Your task to perform on an android device: see creations saved in the google photos Image 0: 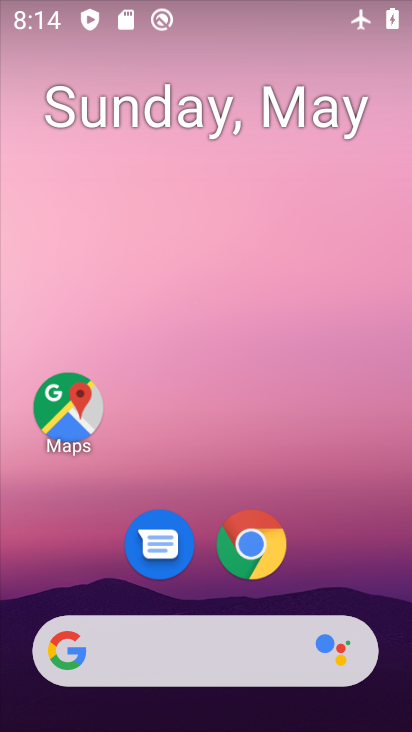
Step 0: drag from (314, 583) to (237, 4)
Your task to perform on an android device: see creations saved in the google photos Image 1: 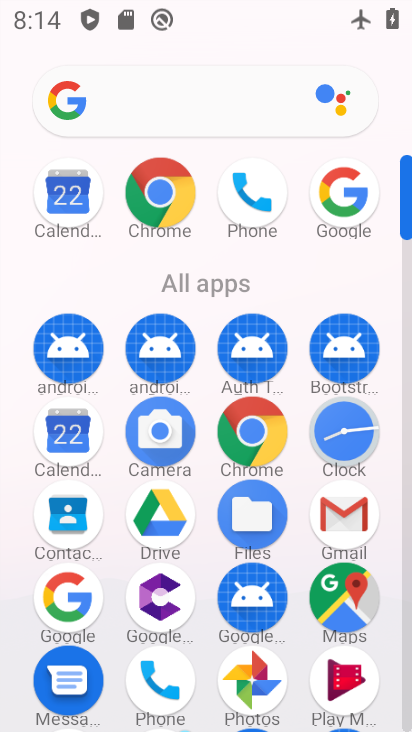
Step 1: drag from (15, 617) to (14, 207)
Your task to perform on an android device: see creations saved in the google photos Image 2: 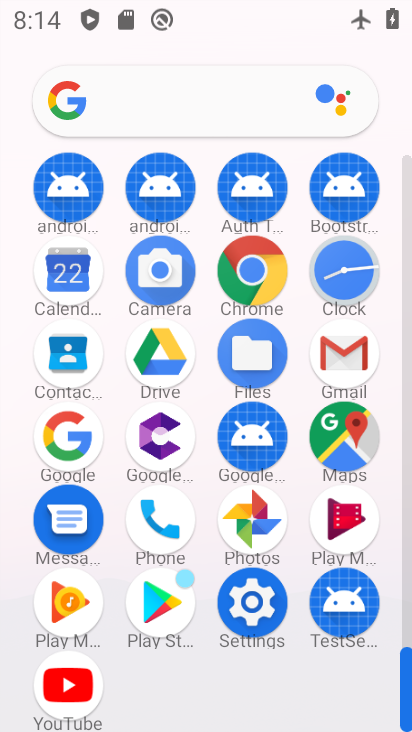
Step 2: click (253, 509)
Your task to perform on an android device: see creations saved in the google photos Image 3: 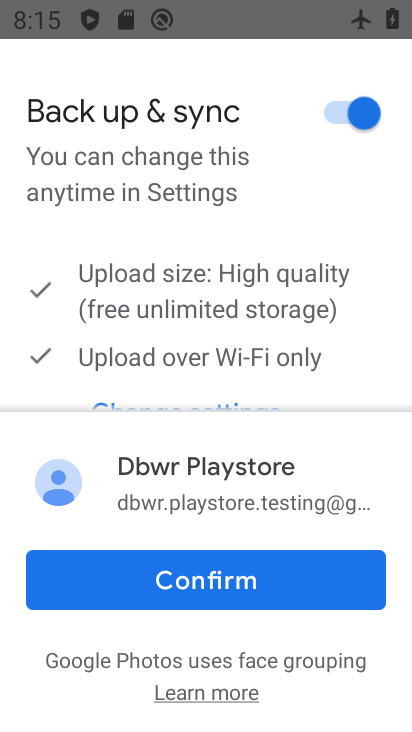
Step 3: click (252, 584)
Your task to perform on an android device: see creations saved in the google photos Image 4: 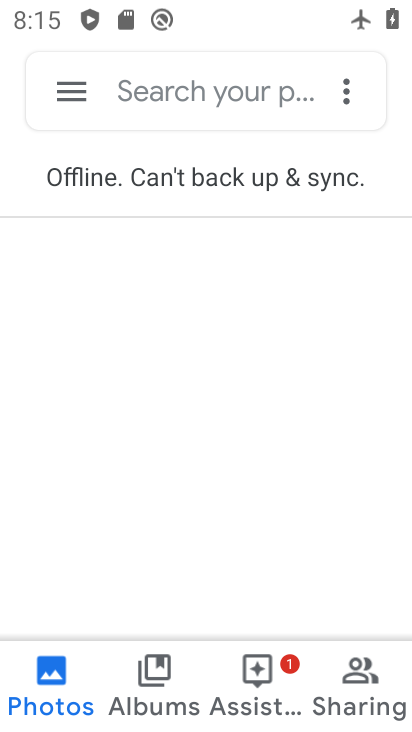
Step 4: click (65, 86)
Your task to perform on an android device: see creations saved in the google photos Image 5: 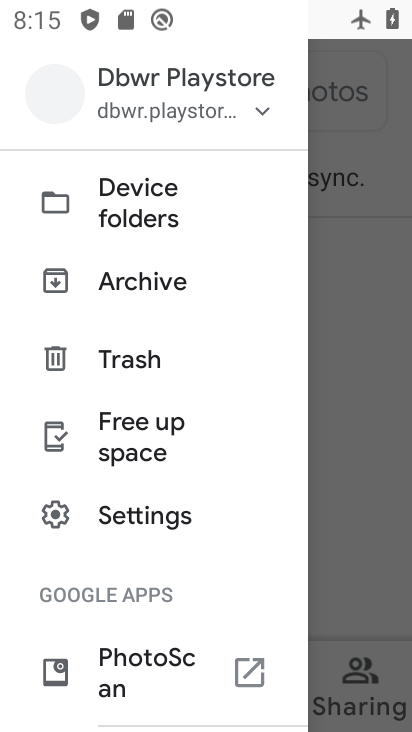
Step 5: click (147, 509)
Your task to perform on an android device: see creations saved in the google photos Image 6: 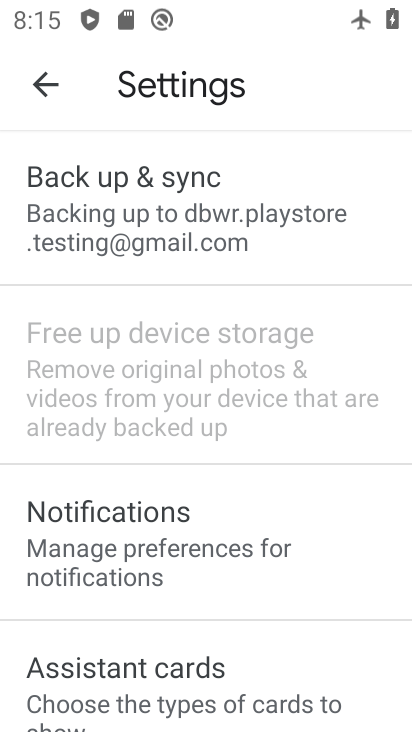
Step 6: drag from (272, 281) to (275, 224)
Your task to perform on an android device: see creations saved in the google photos Image 7: 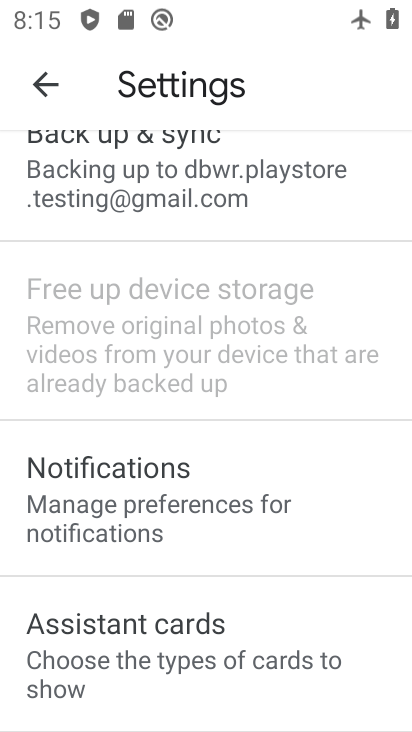
Step 7: drag from (221, 619) to (276, 200)
Your task to perform on an android device: see creations saved in the google photos Image 8: 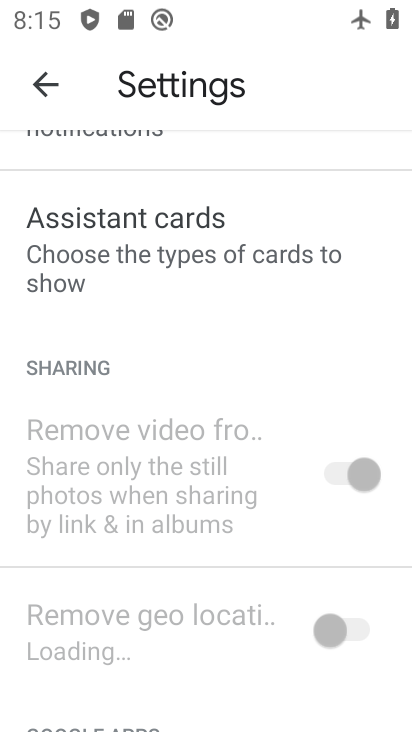
Step 8: drag from (169, 618) to (225, 240)
Your task to perform on an android device: see creations saved in the google photos Image 9: 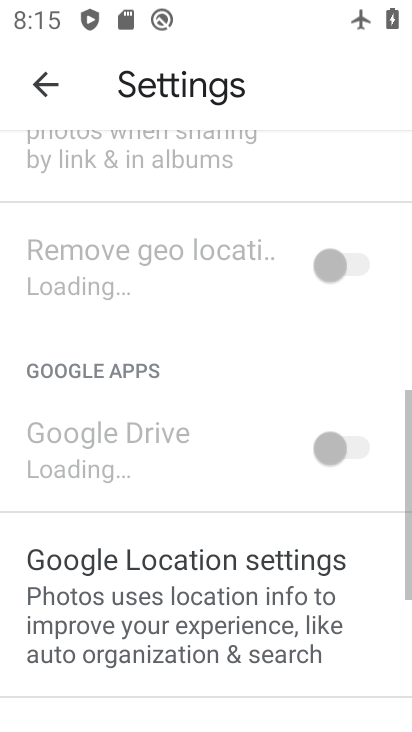
Step 9: drag from (244, 204) to (186, 621)
Your task to perform on an android device: see creations saved in the google photos Image 10: 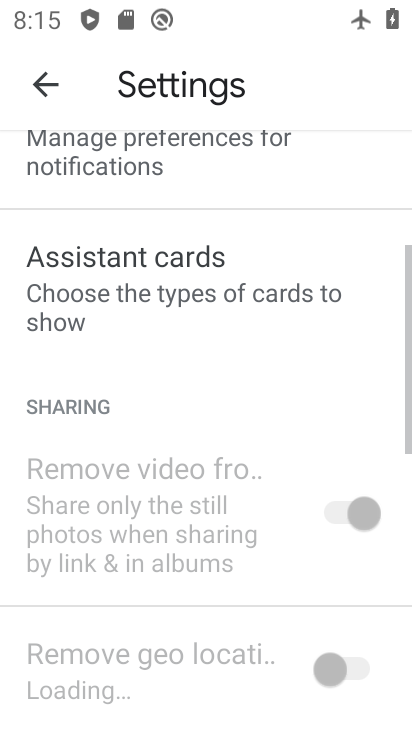
Step 10: drag from (186, 621) to (250, 134)
Your task to perform on an android device: see creations saved in the google photos Image 11: 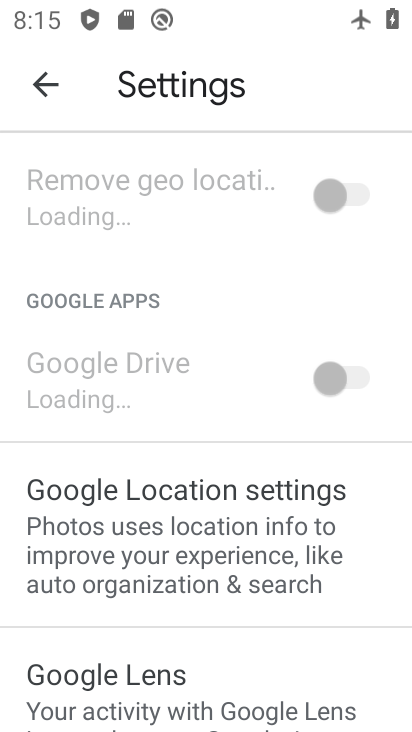
Step 11: drag from (171, 540) to (223, 147)
Your task to perform on an android device: see creations saved in the google photos Image 12: 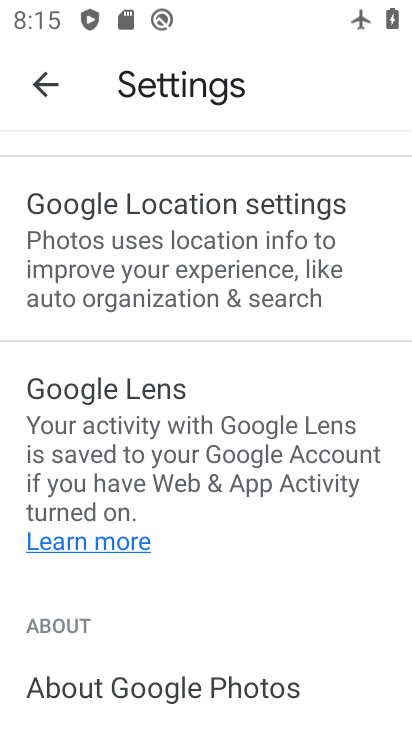
Step 12: drag from (265, 228) to (232, 537)
Your task to perform on an android device: see creations saved in the google photos Image 13: 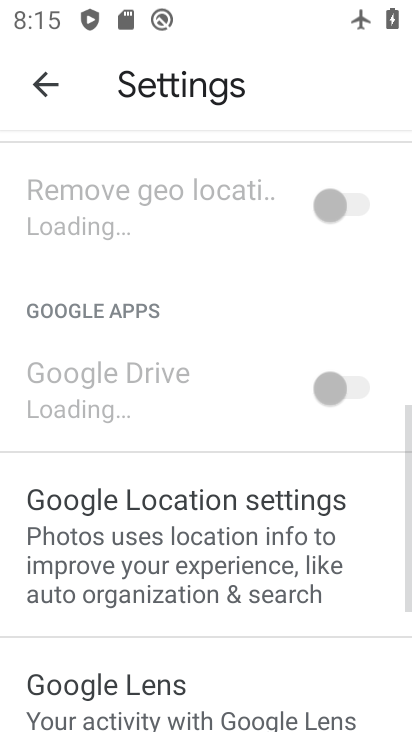
Step 13: drag from (198, 290) to (197, 587)
Your task to perform on an android device: see creations saved in the google photos Image 14: 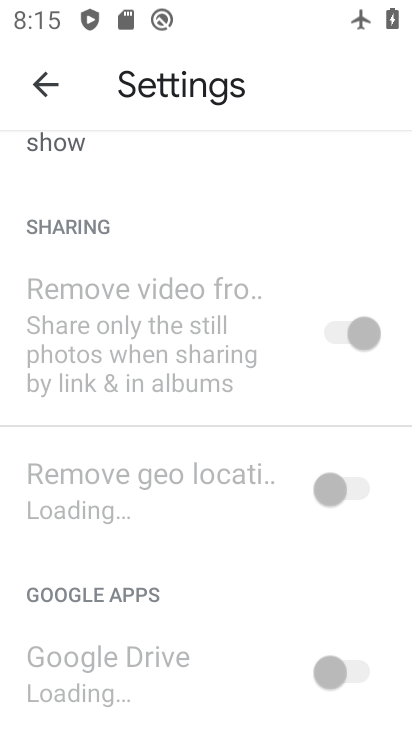
Step 14: drag from (218, 177) to (219, 526)
Your task to perform on an android device: see creations saved in the google photos Image 15: 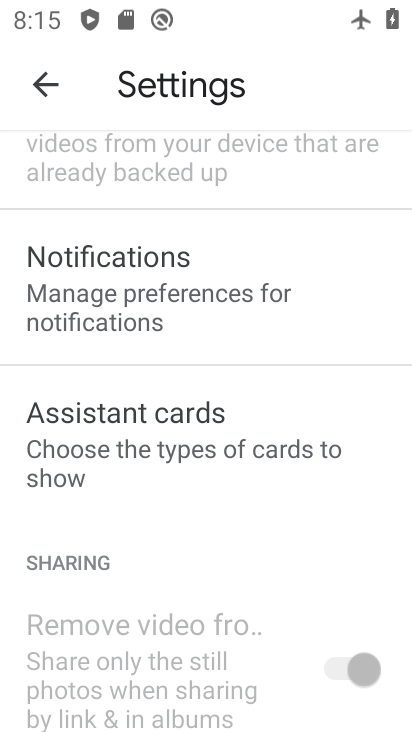
Step 15: drag from (214, 207) to (215, 535)
Your task to perform on an android device: see creations saved in the google photos Image 16: 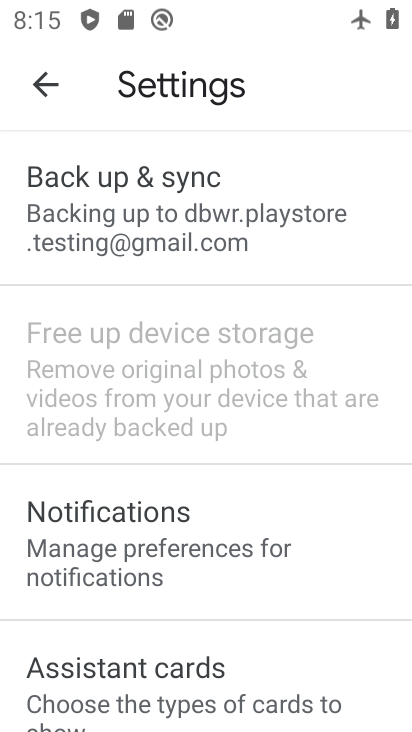
Step 16: drag from (213, 196) to (189, 506)
Your task to perform on an android device: see creations saved in the google photos Image 17: 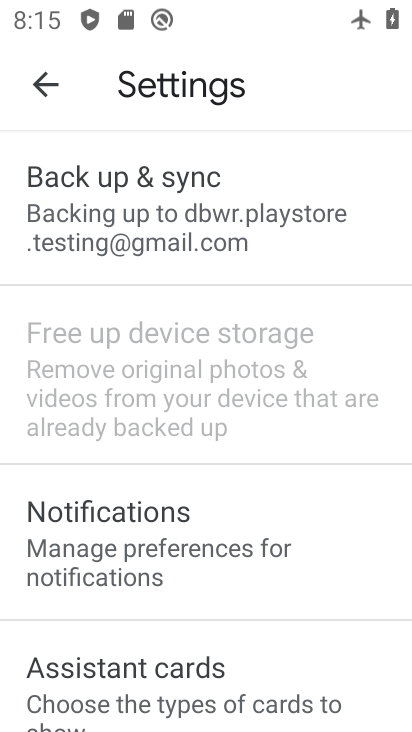
Step 17: click (198, 231)
Your task to perform on an android device: see creations saved in the google photos Image 18: 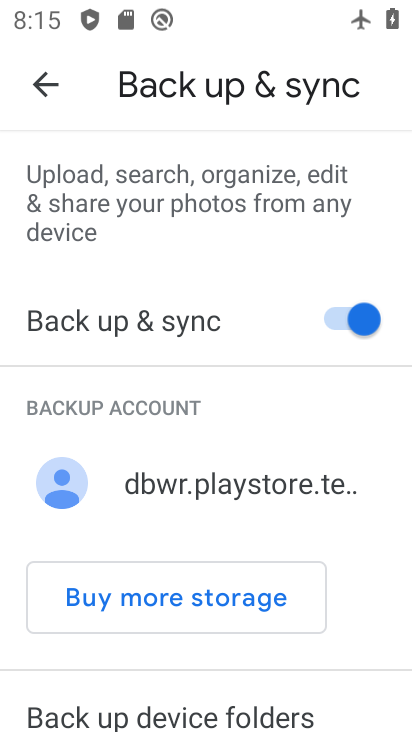
Step 18: task complete